Your task to perform on an android device: turn on improve location accuracy Image 0: 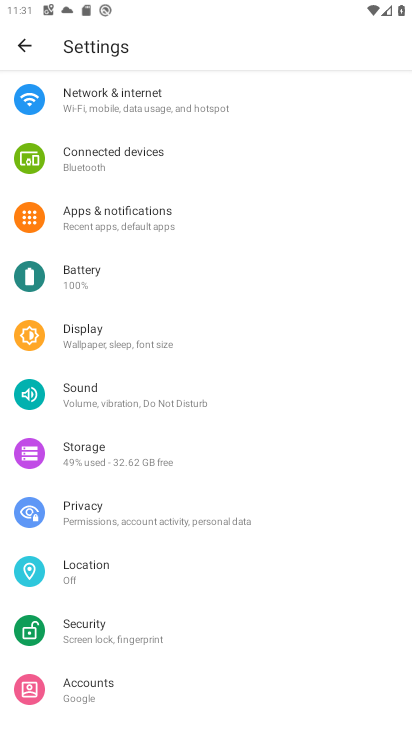
Step 0: click (110, 561)
Your task to perform on an android device: turn on improve location accuracy Image 1: 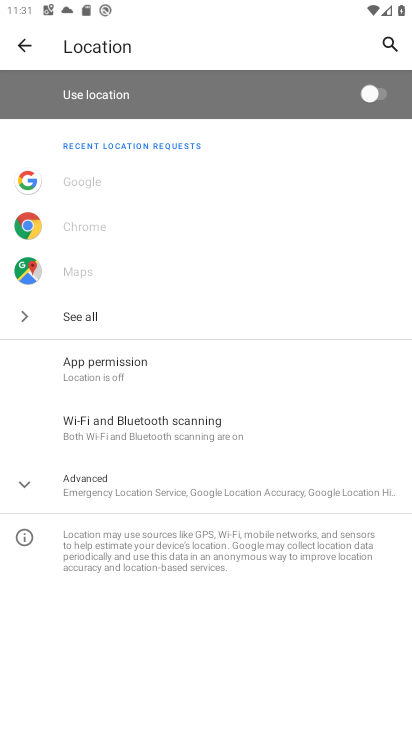
Step 1: click (155, 493)
Your task to perform on an android device: turn on improve location accuracy Image 2: 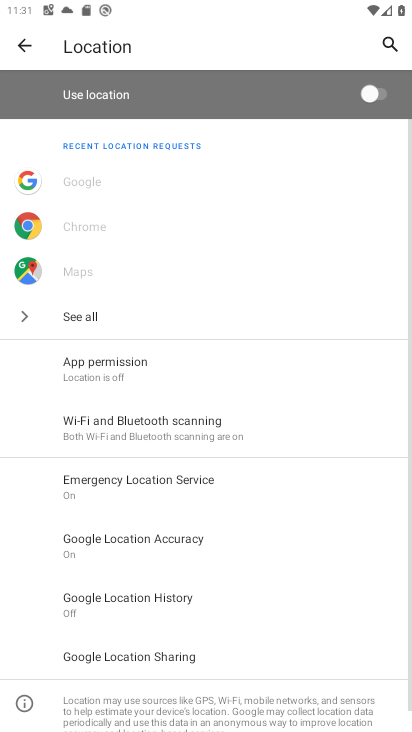
Step 2: click (178, 552)
Your task to perform on an android device: turn on improve location accuracy Image 3: 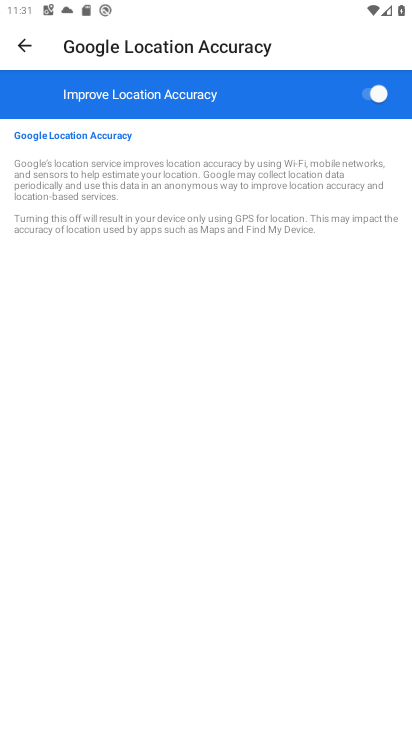
Step 3: task complete